Your task to perform on an android device: check android version Image 0: 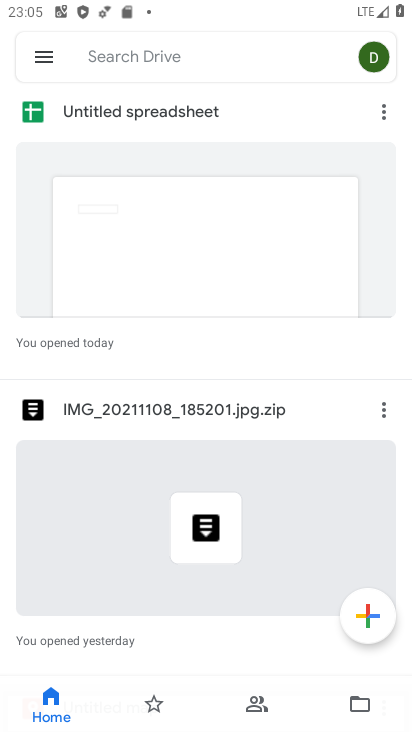
Step 0: press home button
Your task to perform on an android device: check android version Image 1: 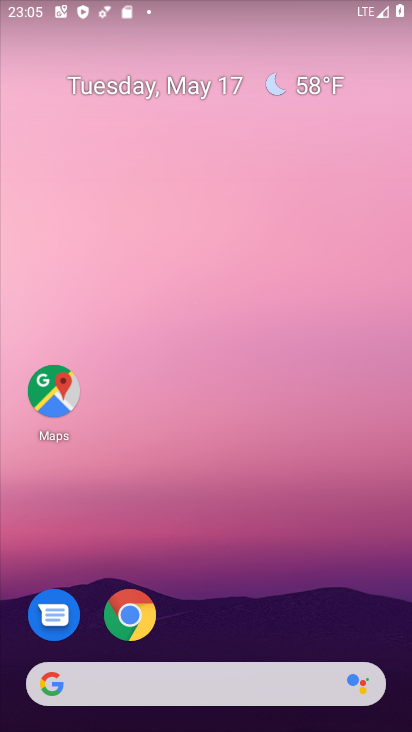
Step 1: drag from (232, 645) to (236, 164)
Your task to perform on an android device: check android version Image 2: 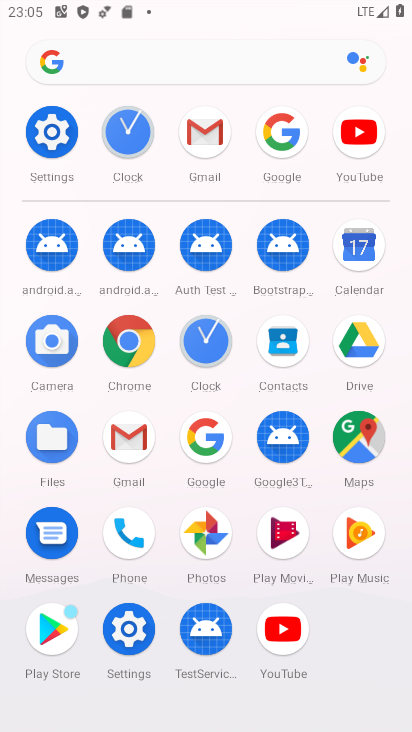
Step 2: click (25, 130)
Your task to perform on an android device: check android version Image 3: 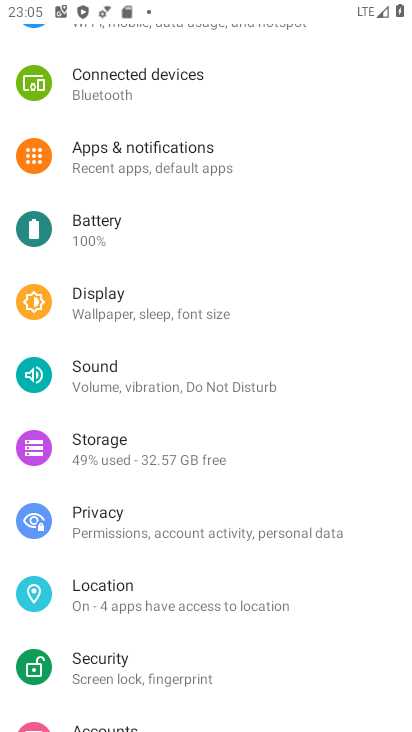
Step 3: drag from (161, 678) to (233, 199)
Your task to perform on an android device: check android version Image 4: 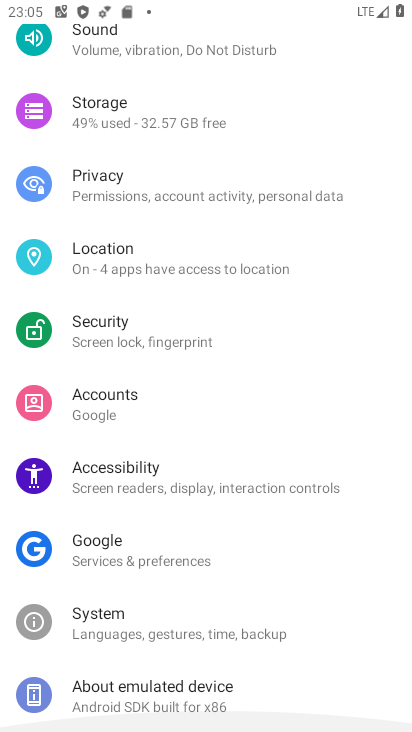
Step 4: drag from (228, 650) to (209, 163)
Your task to perform on an android device: check android version Image 5: 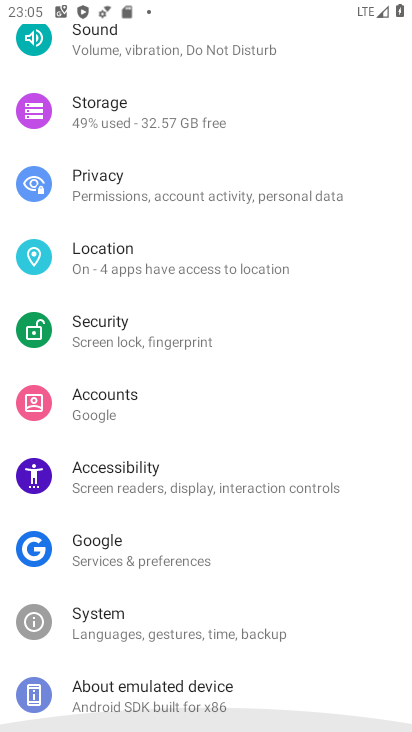
Step 5: drag from (183, 479) to (183, 256)
Your task to perform on an android device: check android version Image 6: 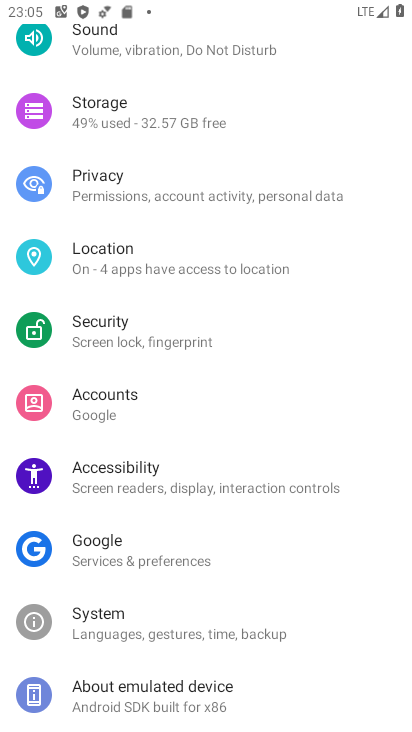
Step 6: click (157, 684)
Your task to perform on an android device: check android version Image 7: 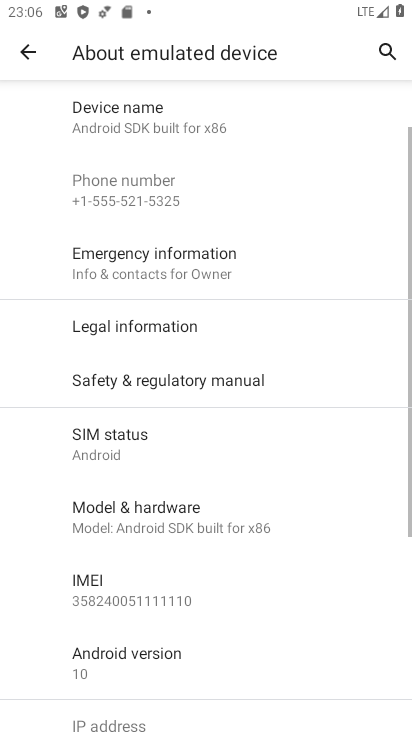
Step 7: click (147, 643)
Your task to perform on an android device: check android version Image 8: 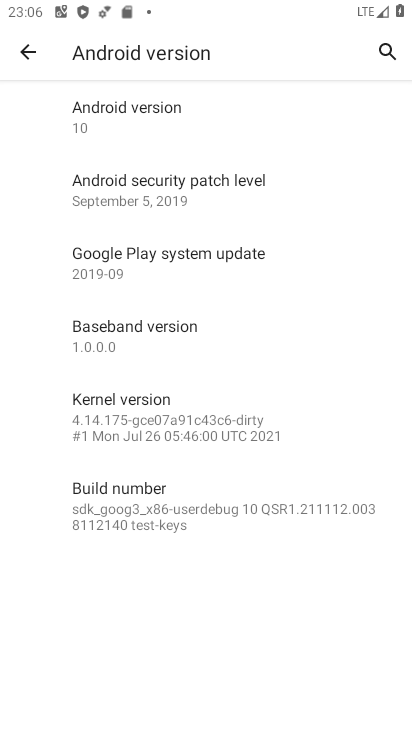
Step 8: click (160, 116)
Your task to perform on an android device: check android version Image 9: 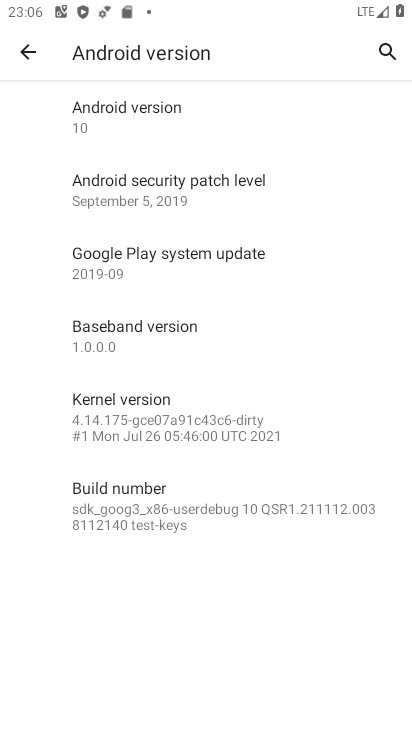
Step 9: task complete